Your task to perform on an android device: turn vacation reply on in the gmail app Image 0: 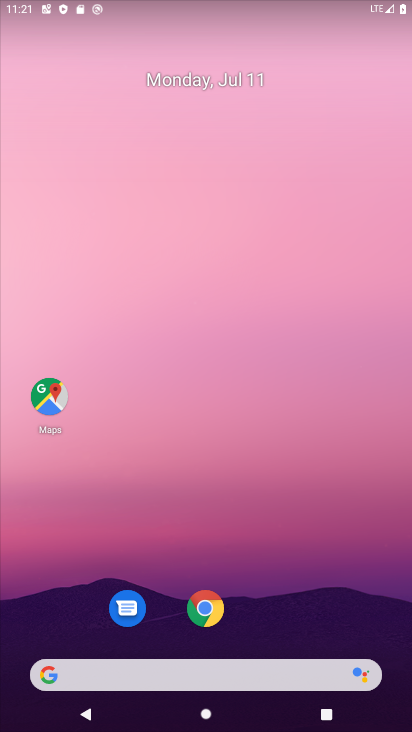
Step 0: drag from (44, 705) to (353, 76)
Your task to perform on an android device: turn vacation reply on in the gmail app Image 1: 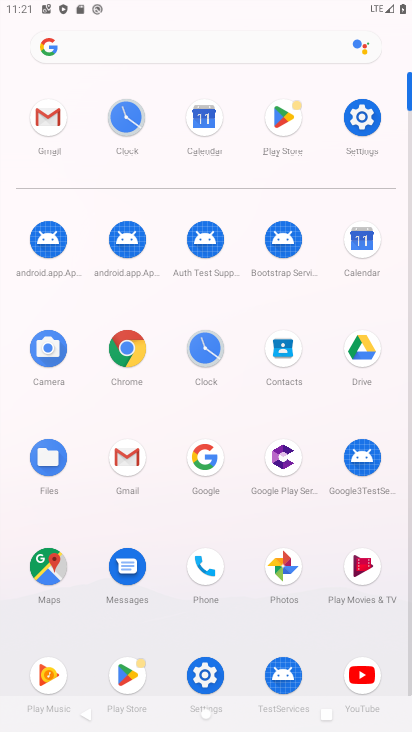
Step 1: click (134, 462)
Your task to perform on an android device: turn vacation reply on in the gmail app Image 2: 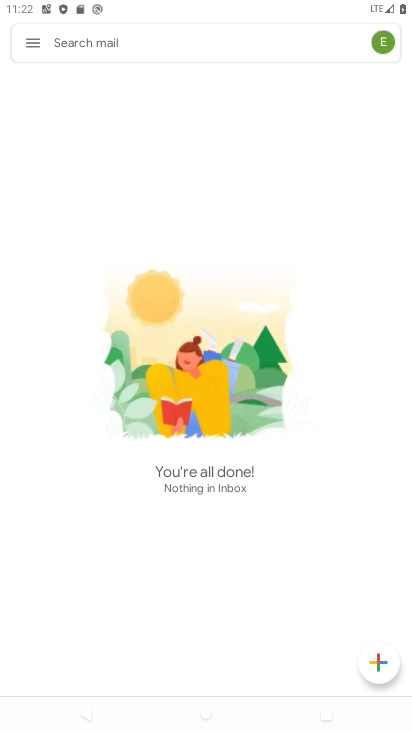
Step 2: task complete